Your task to perform on an android device: Is it going to rain today? Image 0: 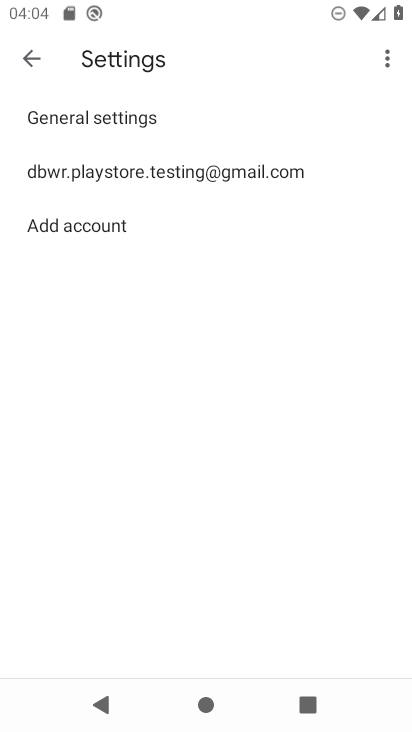
Step 0: press home button
Your task to perform on an android device: Is it going to rain today? Image 1: 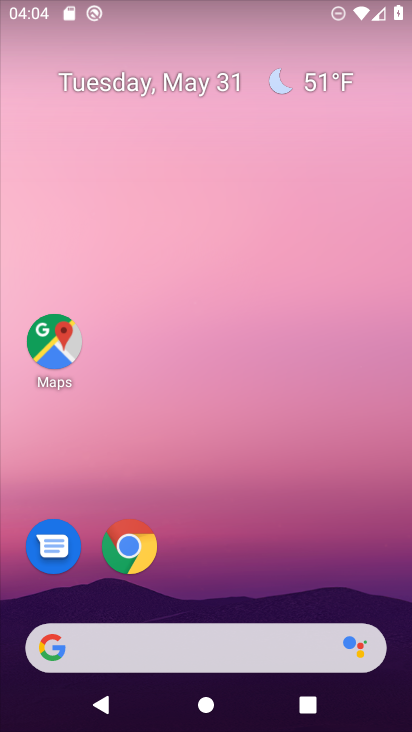
Step 1: click (198, 652)
Your task to perform on an android device: Is it going to rain today? Image 2: 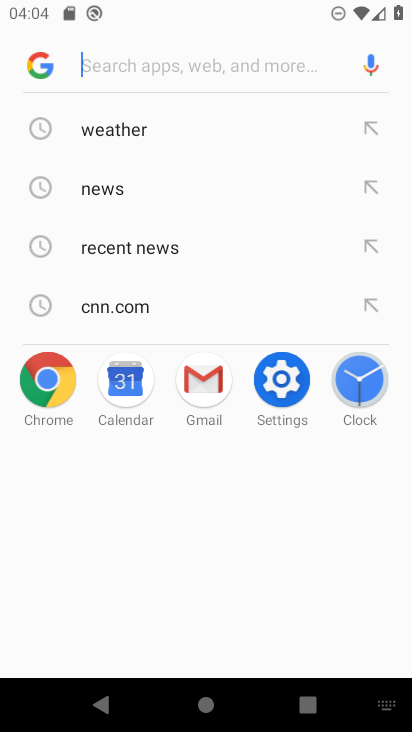
Step 2: click (112, 127)
Your task to perform on an android device: Is it going to rain today? Image 3: 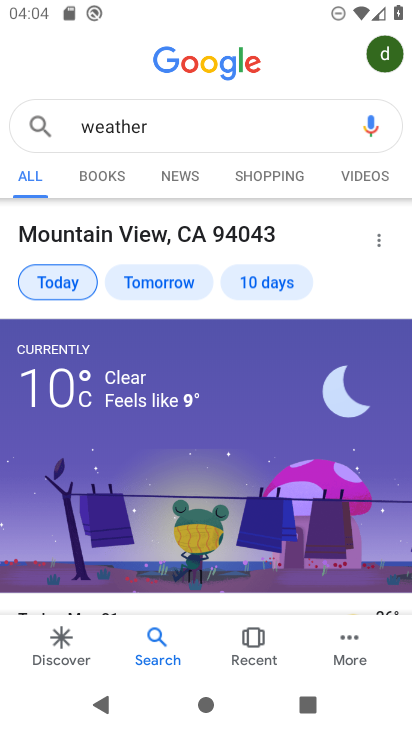
Step 3: task complete